Your task to perform on an android device: Open wifi settings Image 0: 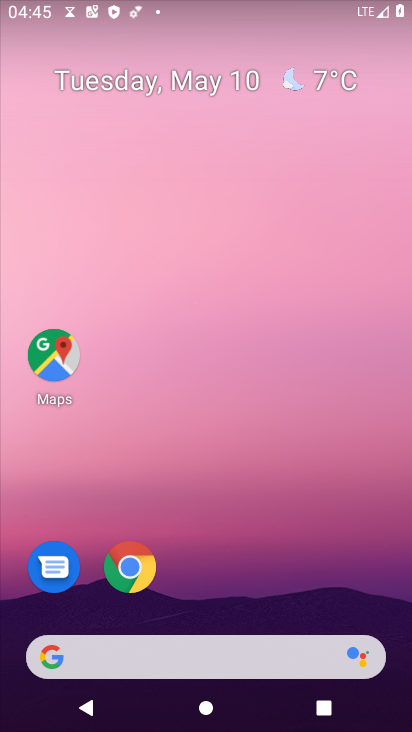
Step 0: drag from (226, 554) to (163, 77)
Your task to perform on an android device: Open wifi settings Image 1: 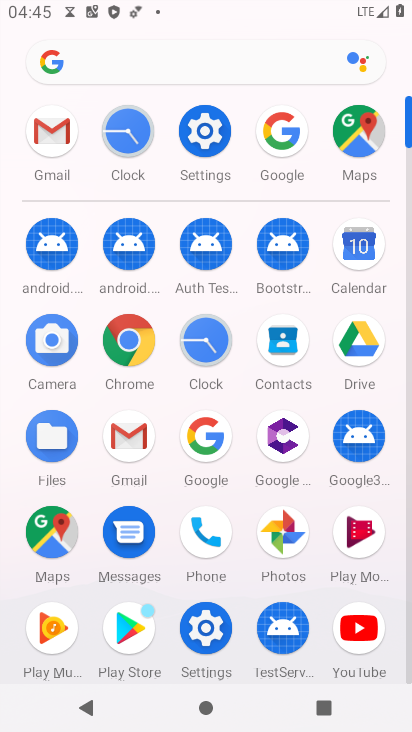
Step 1: click (204, 136)
Your task to perform on an android device: Open wifi settings Image 2: 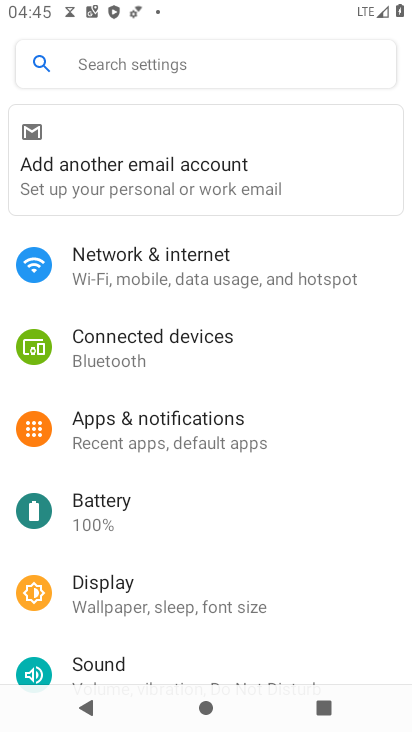
Step 2: click (170, 253)
Your task to perform on an android device: Open wifi settings Image 3: 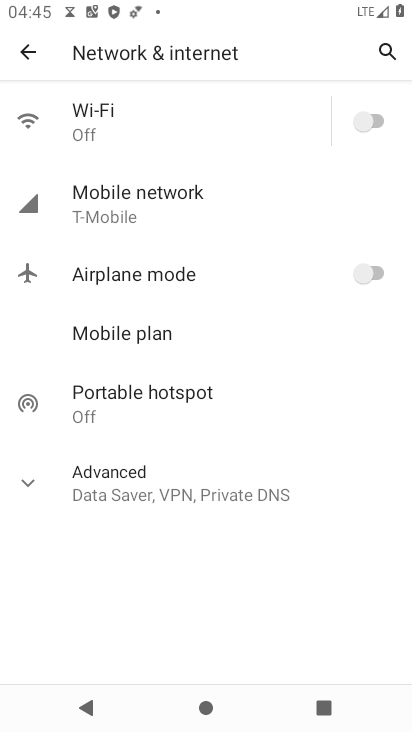
Step 3: click (88, 115)
Your task to perform on an android device: Open wifi settings Image 4: 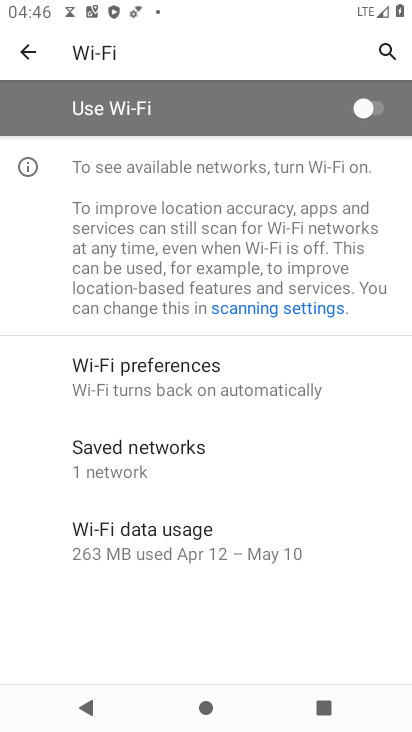
Step 4: task complete